Your task to perform on an android device: Open Google Chrome and click the shortcut for Amazon.com Image 0: 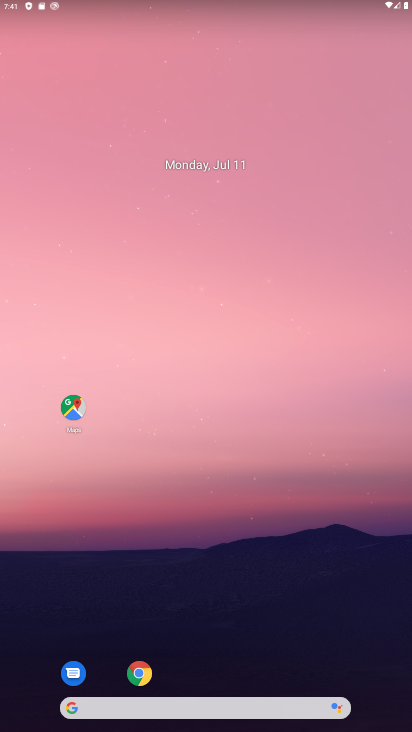
Step 0: drag from (329, 593) to (302, 46)
Your task to perform on an android device: Open Google Chrome and click the shortcut for Amazon.com Image 1: 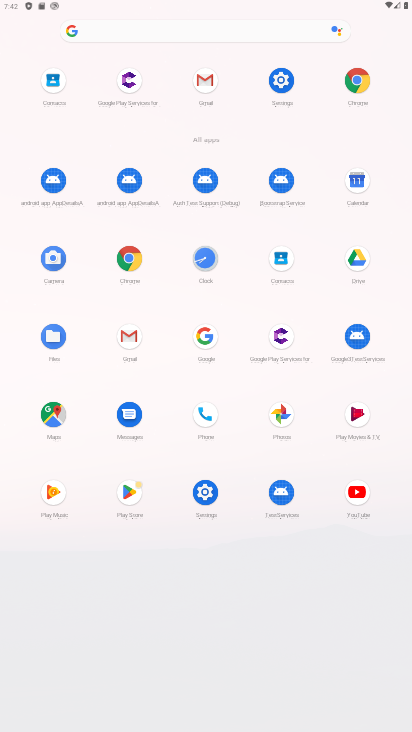
Step 1: click (350, 83)
Your task to perform on an android device: Open Google Chrome and click the shortcut for Amazon.com Image 2: 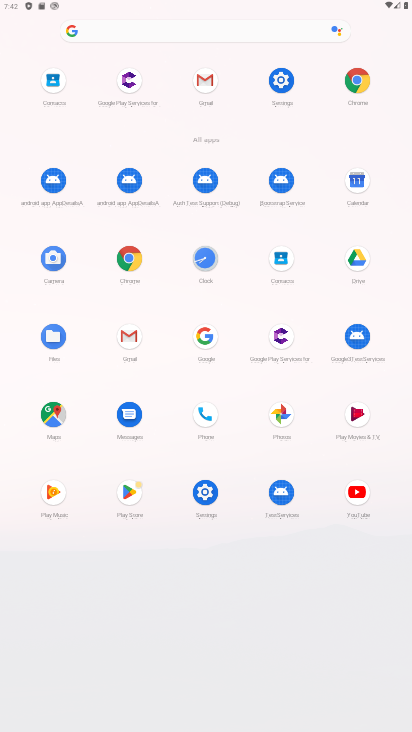
Step 2: click (352, 81)
Your task to perform on an android device: Open Google Chrome and click the shortcut for Amazon.com Image 3: 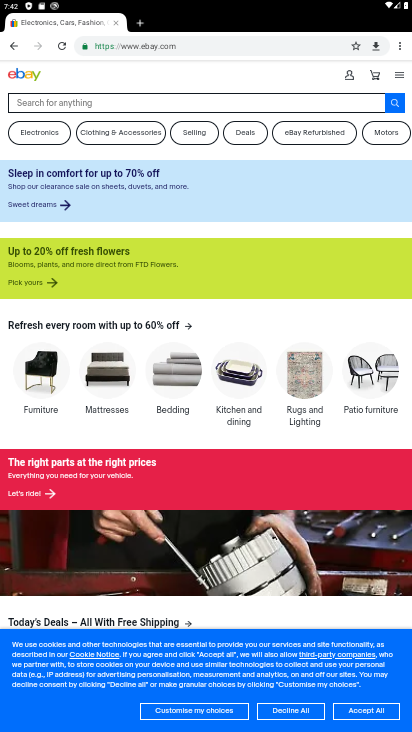
Step 3: click (139, 21)
Your task to perform on an android device: Open Google Chrome and click the shortcut for Amazon.com Image 4: 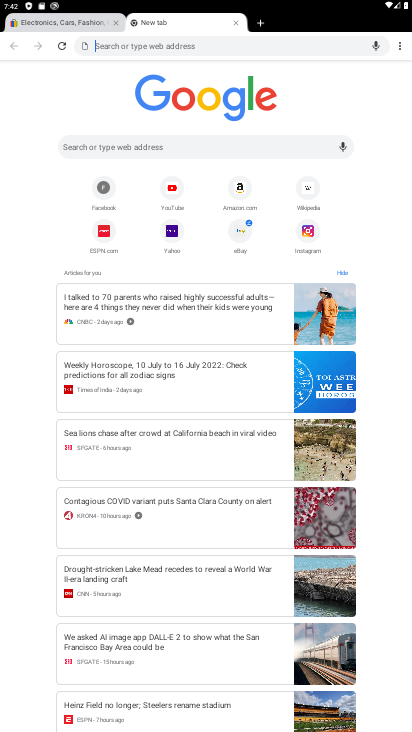
Step 4: click (242, 194)
Your task to perform on an android device: Open Google Chrome and click the shortcut for Amazon.com Image 5: 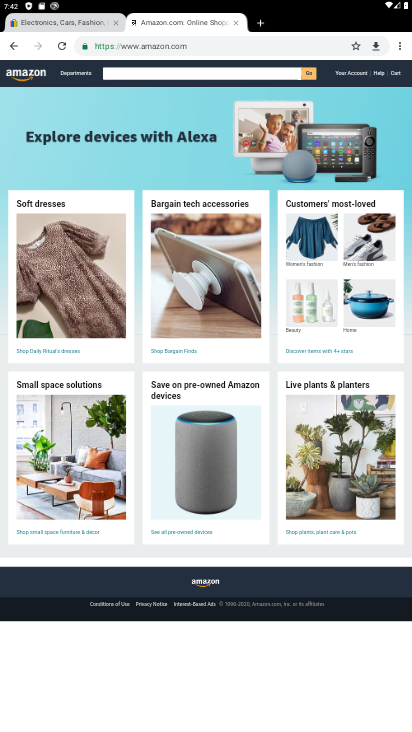
Step 5: task complete